Your task to perform on an android device: turn vacation reply on in the gmail app Image 0: 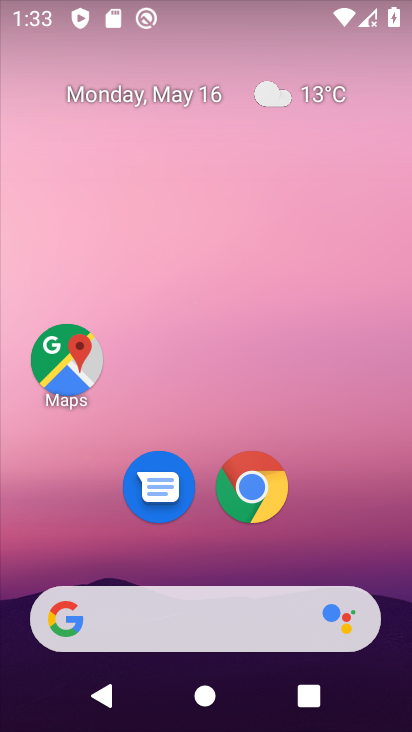
Step 0: drag from (366, 540) to (298, 193)
Your task to perform on an android device: turn vacation reply on in the gmail app Image 1: 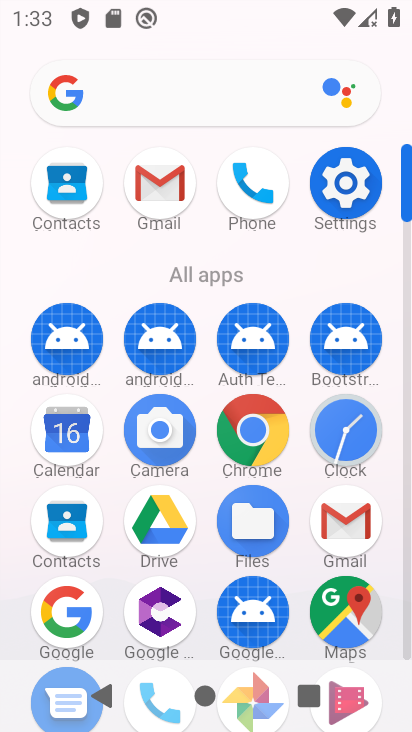
Step 1: click (342, 516)
Your task to perform on an android device: turn vacation reply on in the gmail app Image 2: 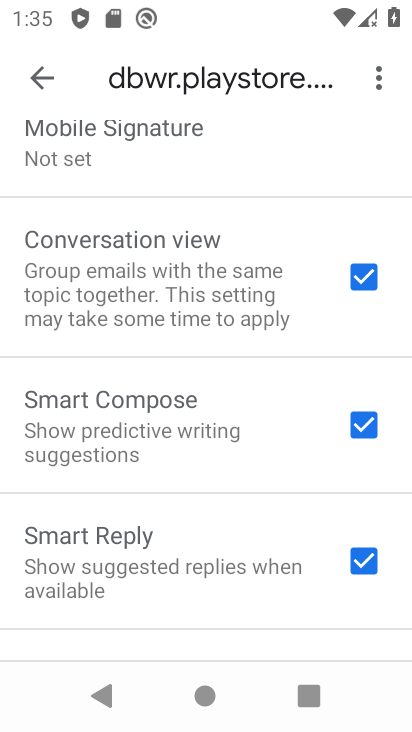
Step 2: task complete